Your task to perform on an android device: What's the weather going to be tomorrow? Image 0: 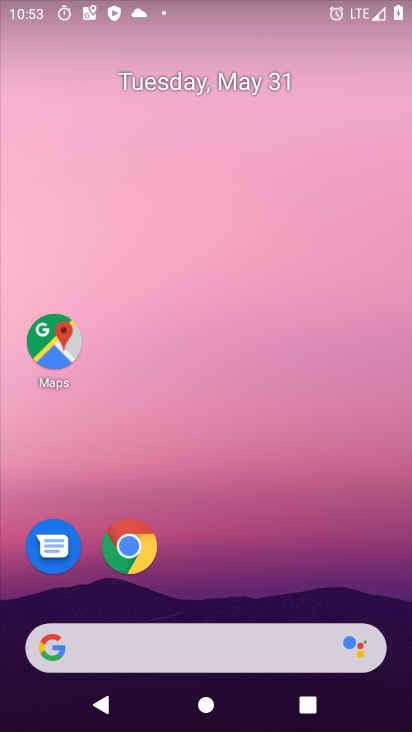
Step 0: click (152, 646)
Your task to perform on an android device: What's the weather going to be tomorrow? Image 1: 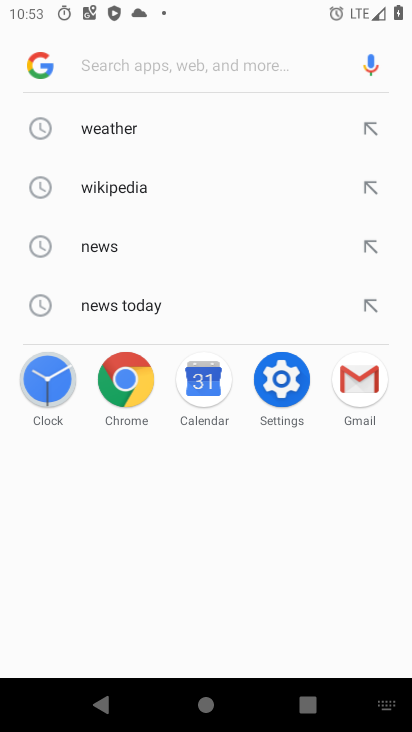
Step 1: click (87, 121)
Your task to perform on an android device: What's the weather going to be tomorrow? Image 2: 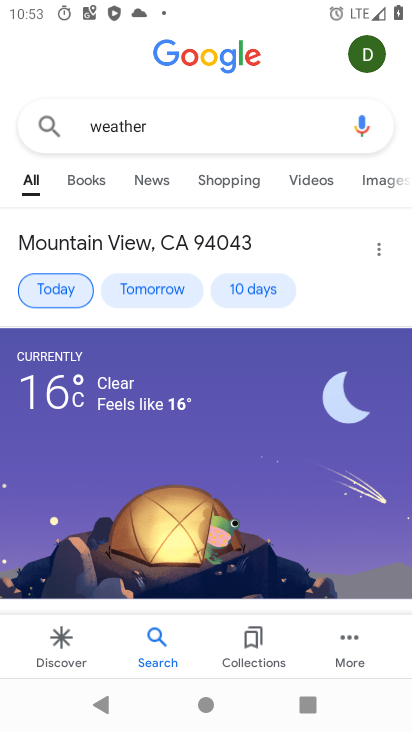
Step 2: click (136, 282)
Your task to perform on an android device: What's the weather going to be tomorrow? Image 3: 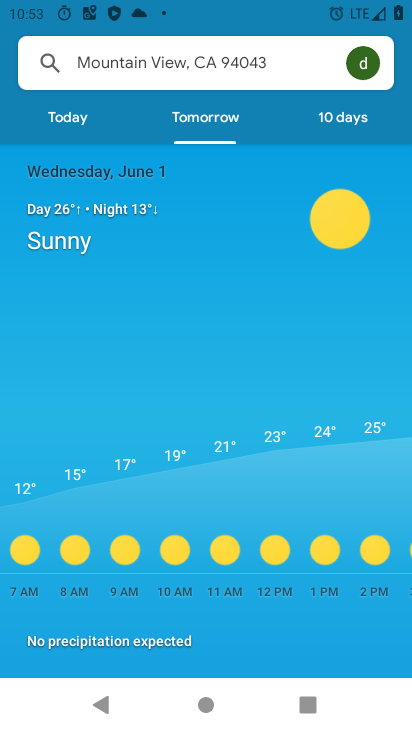
Step 3: task complete